Your task to perform on an android device: What's the weather going to be tomorrow? Image 0: 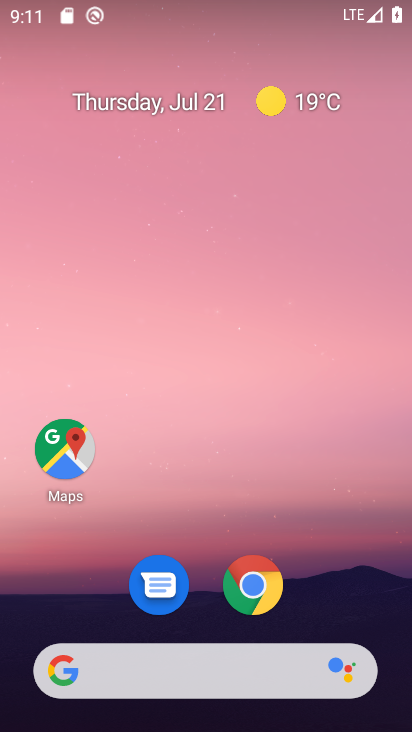
Step 0: click (196, 688)
Your task to perform on an android device: What's the weather going to be tomorrow? Image 1: 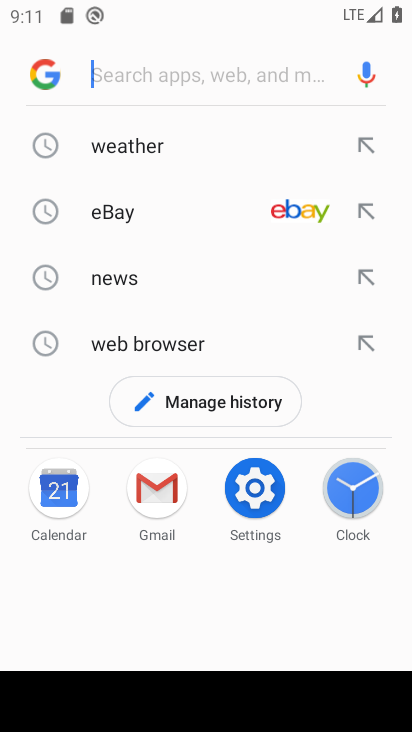
Step 1: click (144, 149)
Your task to perform on an android device: What's the weather going to be tomorrow? Image 2: 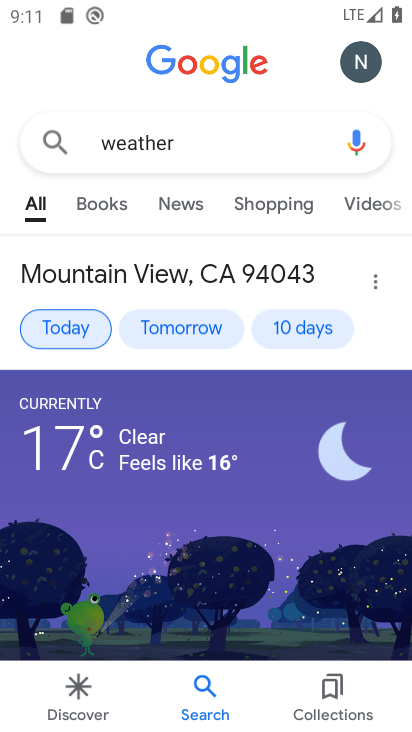
Step 2: click (192, 325)
Your task to perform on an android device: What's the weather going to be tomorrow? Image 3: 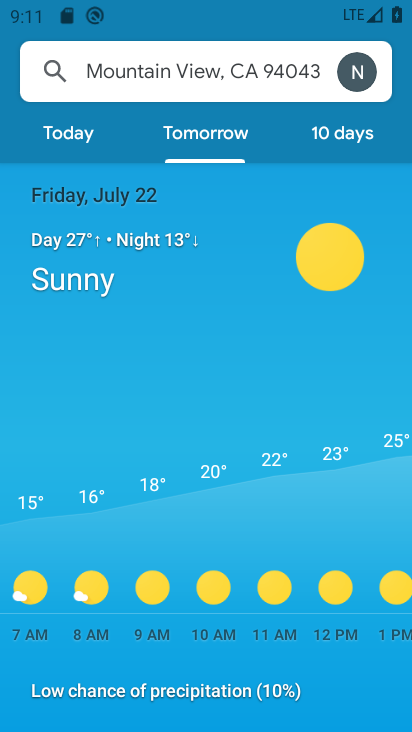
Step 3: task complete